Your task to perform on an android device: toggle notification dots Image 0: 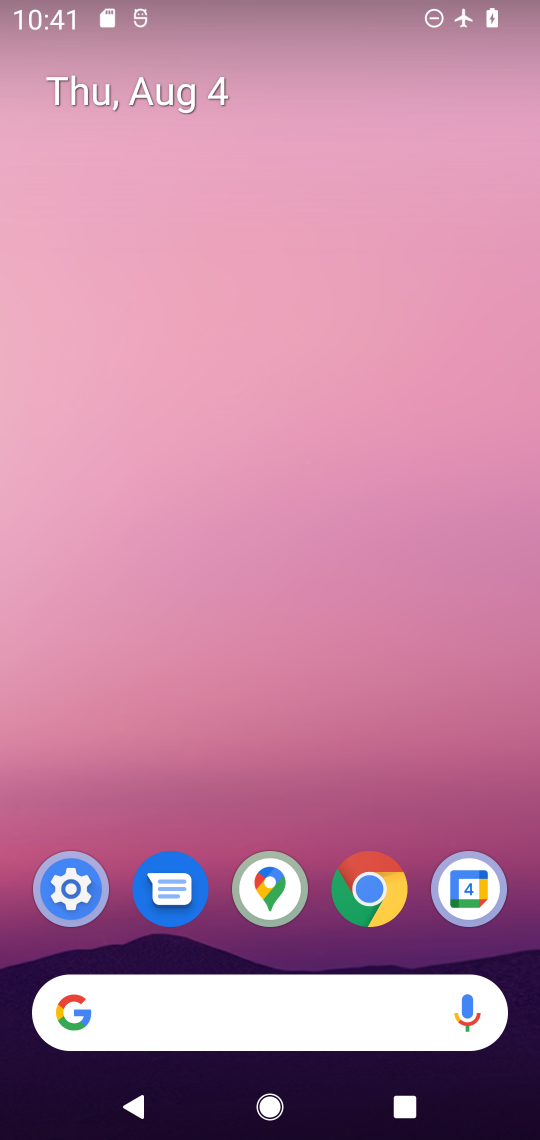
Step 0: press home button
Your task to perform on an android device: toggle notification dots Image 1: 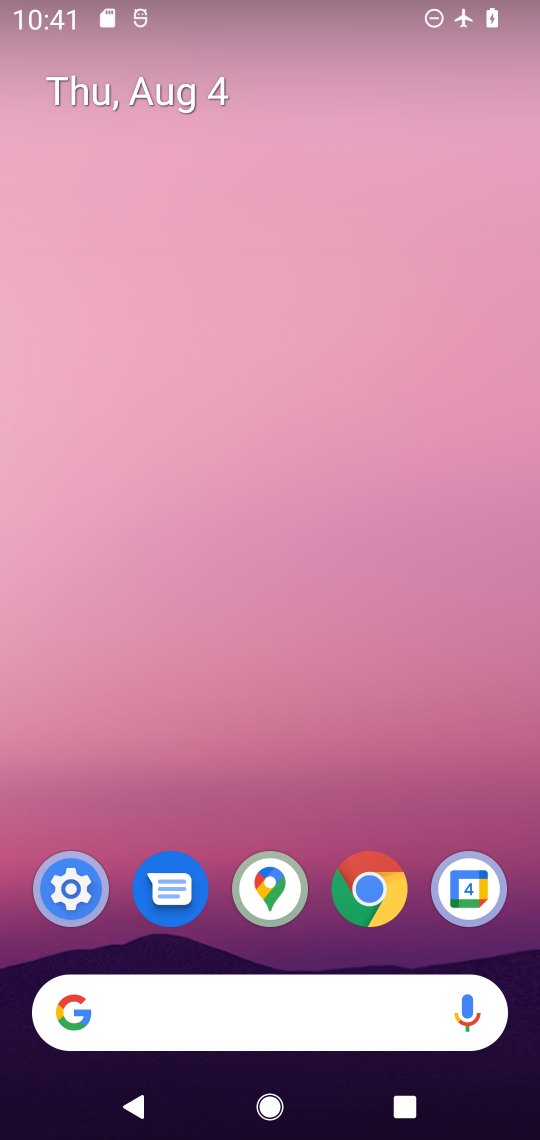
Step 1: drag from (301, 726) to (306, 205)
Your task to perform on an android device: toggle notification dots Image 2: 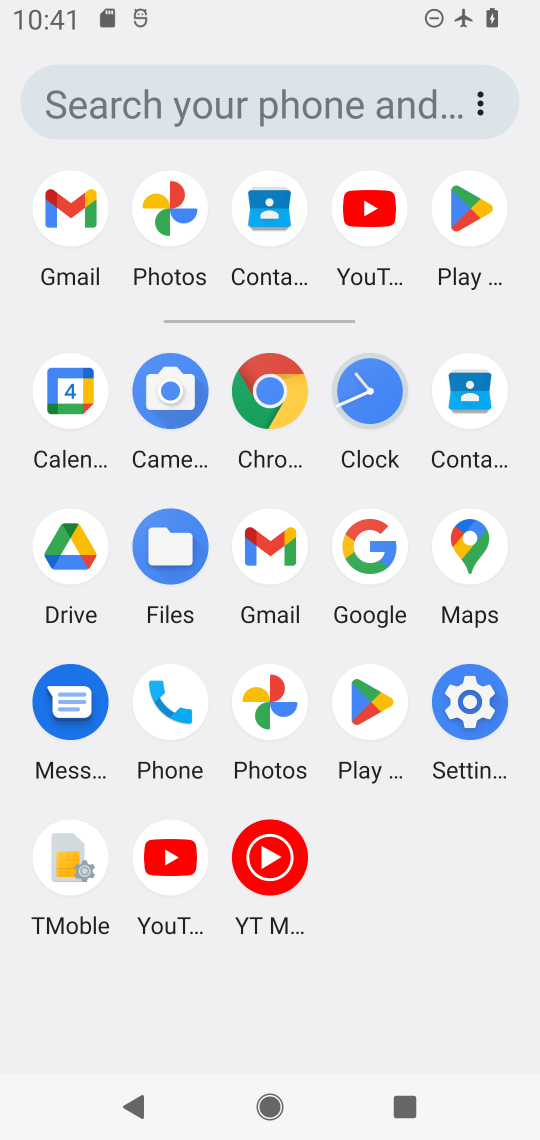
Step 2: click (461, 710)
Your task to perform on an android device: toggle notification dots Image 3: 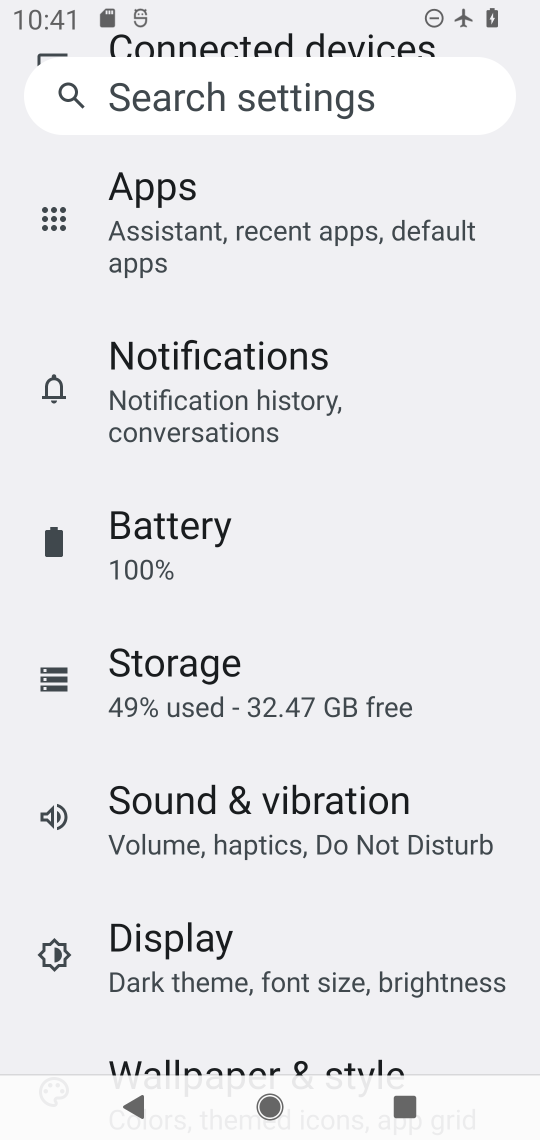
Step 3: drag from (429, 335) to (452, 563)
Your task to perform on an android device: toggle notification dots Image 4: 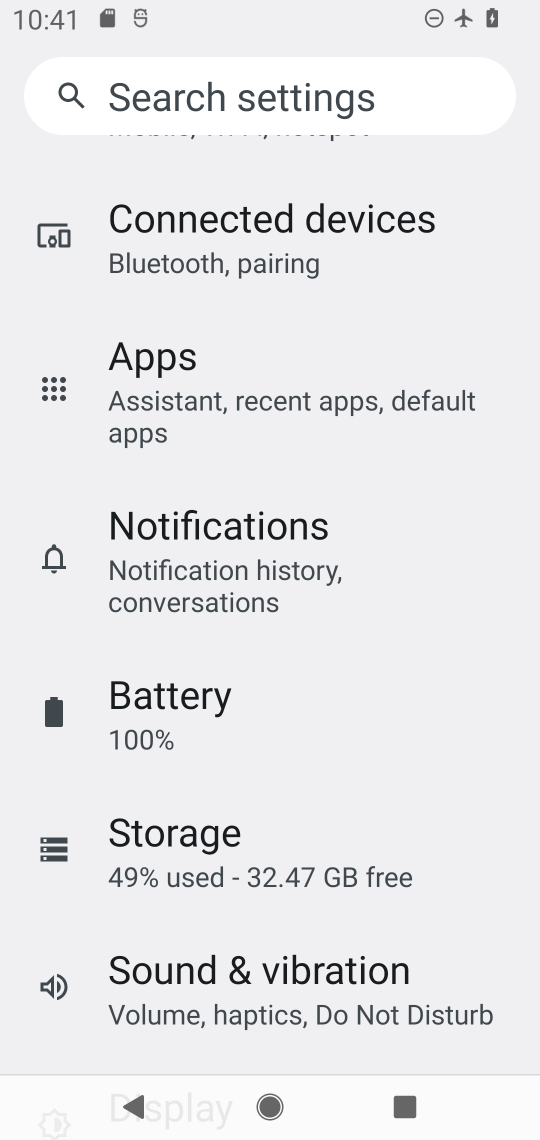
Step 4: drag from (466, 307) to (460, 549)
Your task to perform on an android device: toggle notification dots Image 5: 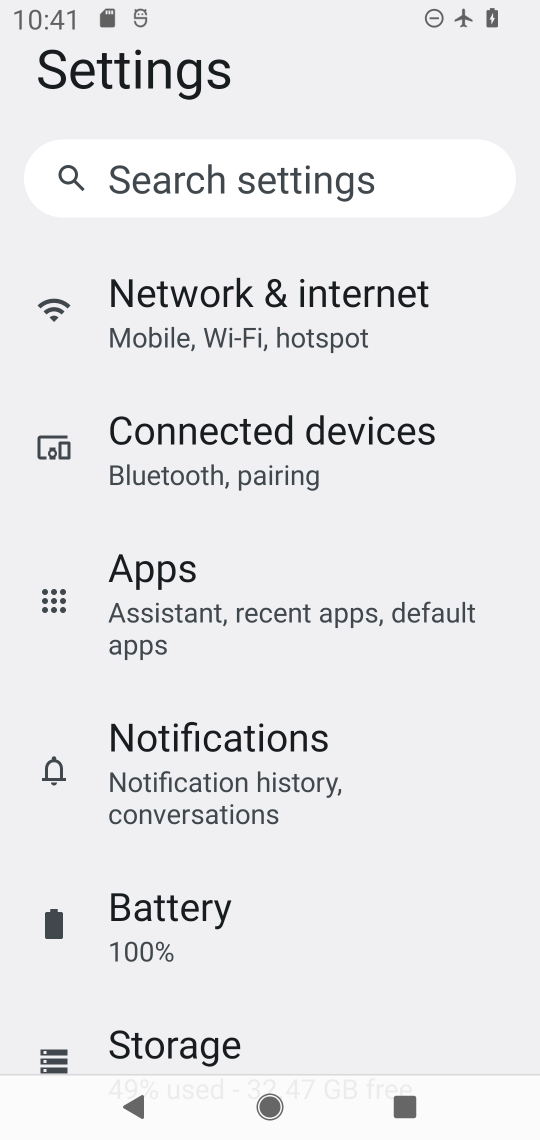
Step 5: drag from (466, 305) to (444, 679)
Your task to perform on an android device: toggle notification dots Image 6: 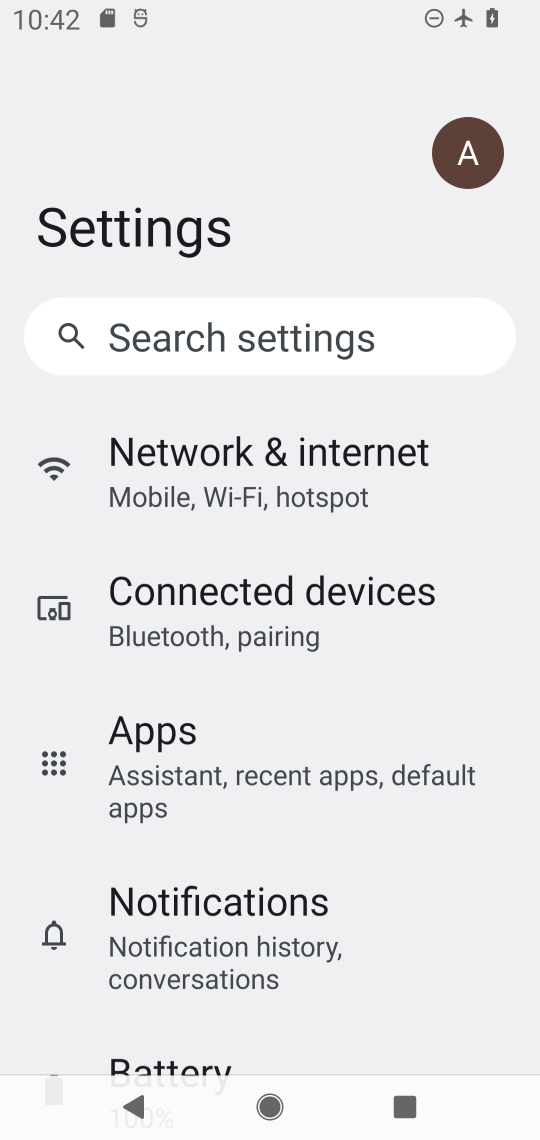
Step 6: drag from (453, 750) to (450, 608)
Your task to perform on an android device: toggle notification dots Image 7: 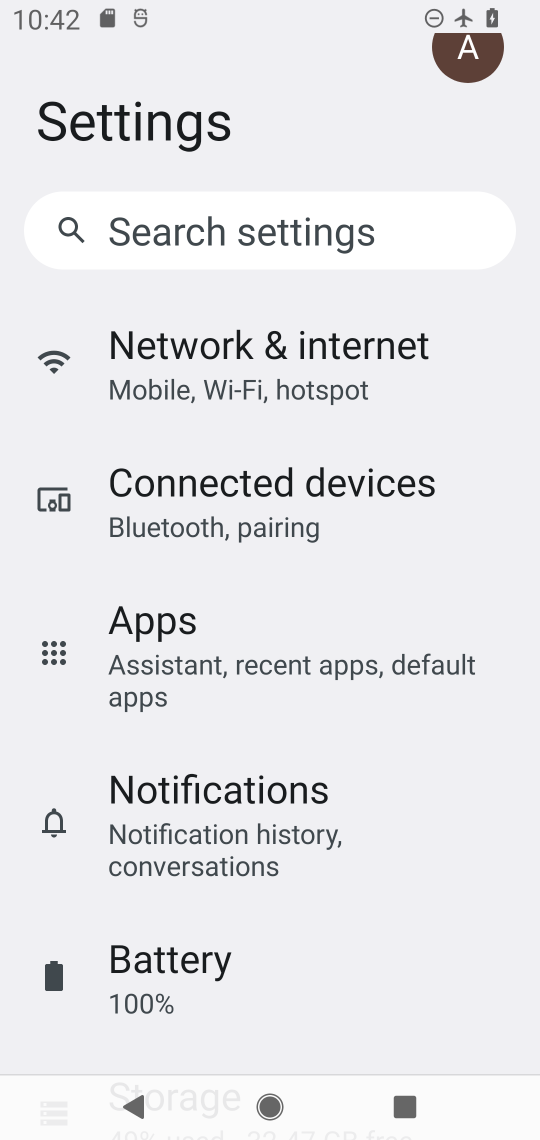
Step 7: drag from (426, 827) to (441, 638)
Your task to perform on an android device: toggle notification dots Image 8: 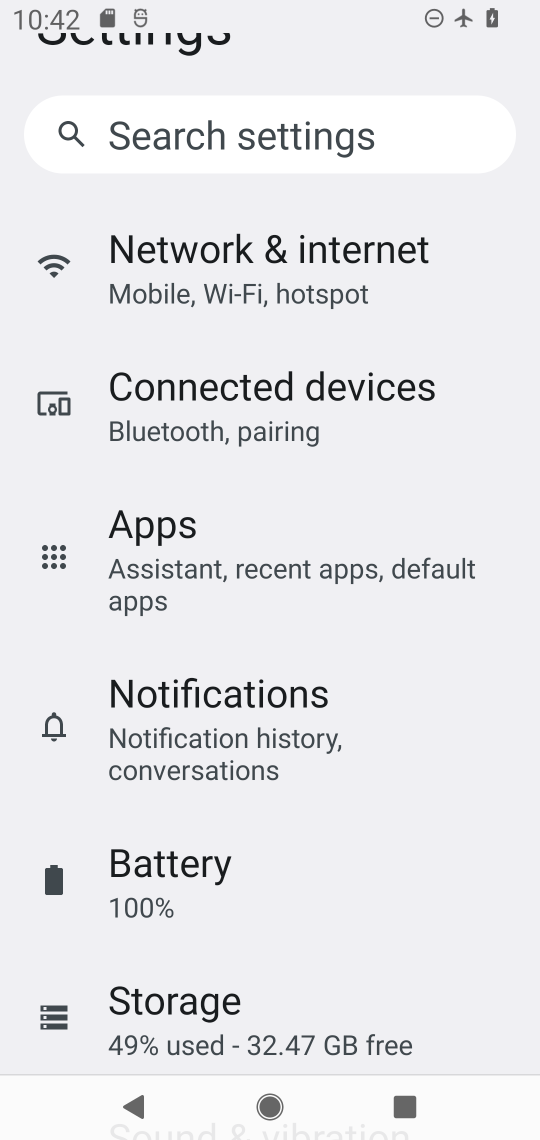
Step 8: drag from (435, 881) to (432, 643)
Your task to perform on an android device: toggle notification dots Image 9: 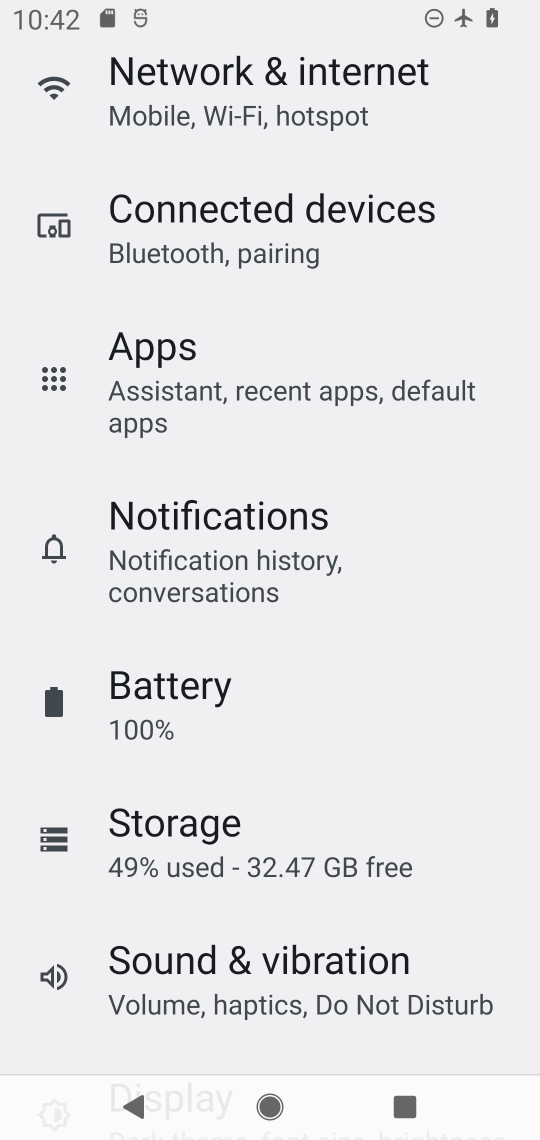
Step 9: drag from (433, 900) to (439, 695)
Your task to perform on an android device: toggle notification dots Image 10: 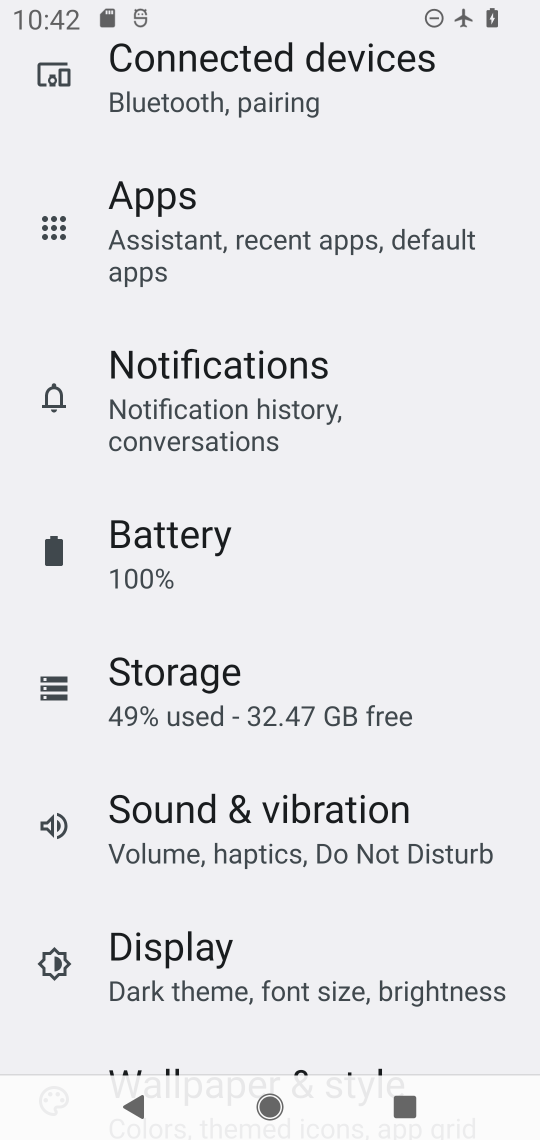
Step 10: drag from (439, 925) to (444, 636)
Your task to perform on an android device: toggle notification dots Image 11: 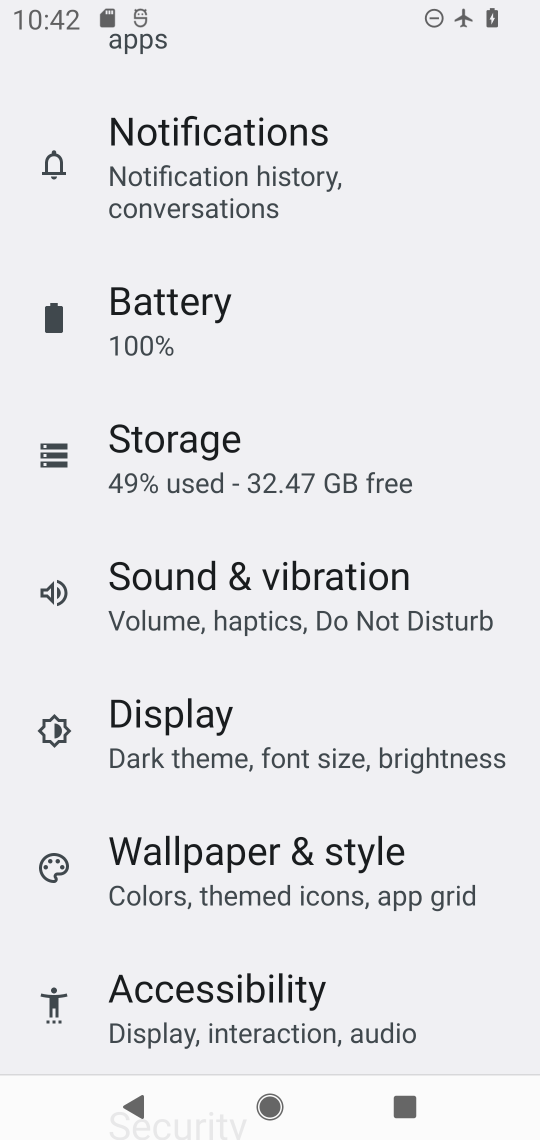
Step 11: drag from (424, 925) to (424, 674)
Your task to perform on an android device: toggle notification dots Image 12: 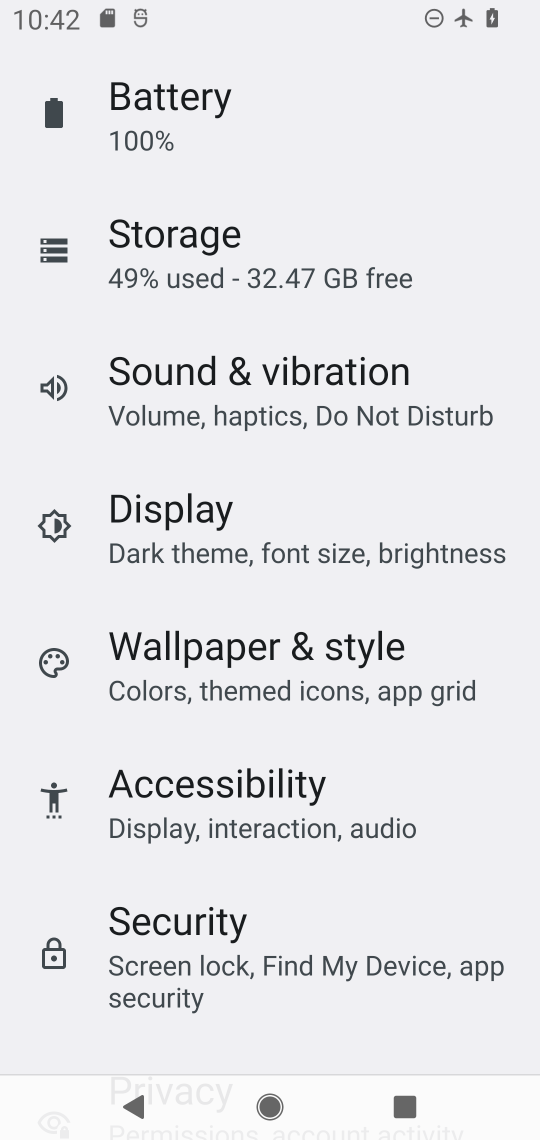
Step 12: drag from (412, 929) to (412, 718)
Your task to perform on an android device: toggle notification dots Image 13: 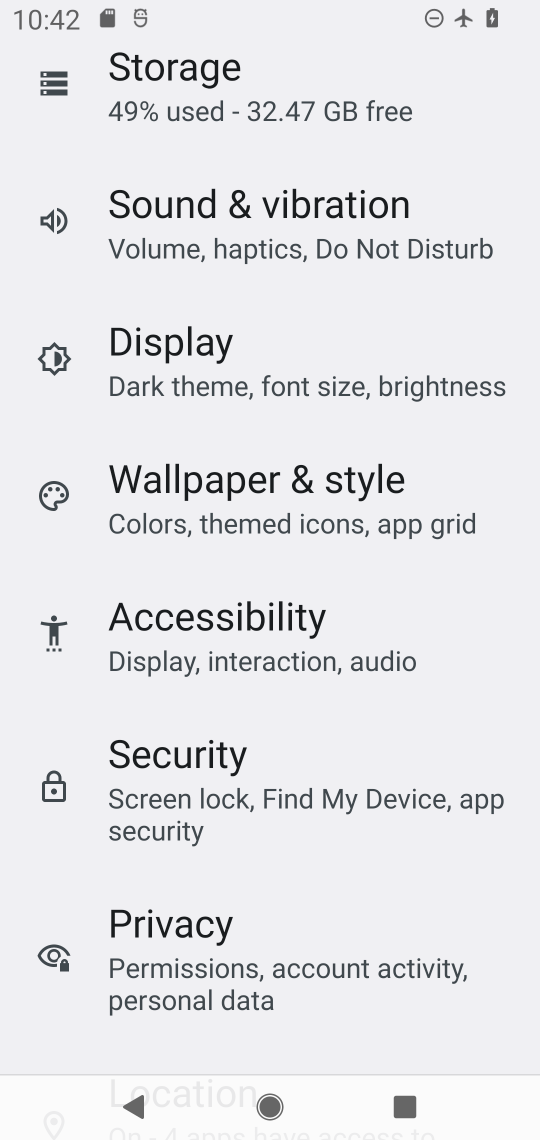
Step 13: drag from (445, 542) to (453, 734)
Your task to perform on an android device: toggle notification dots Image 14: 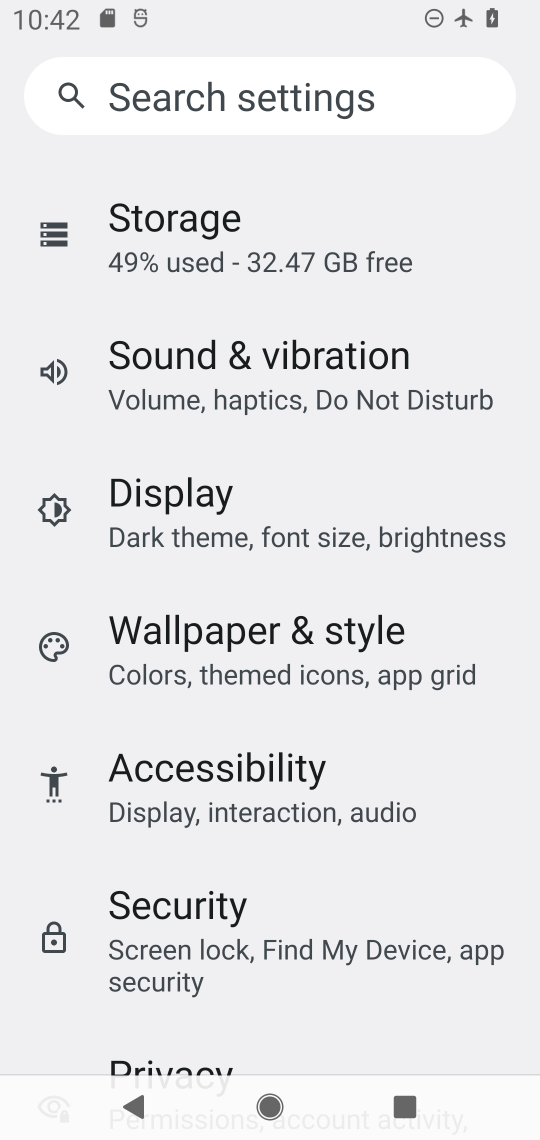
Step 14: drag from (472, 442) to (476, 691)
Your task to perform on an android device: toggle notification dots Image 15: 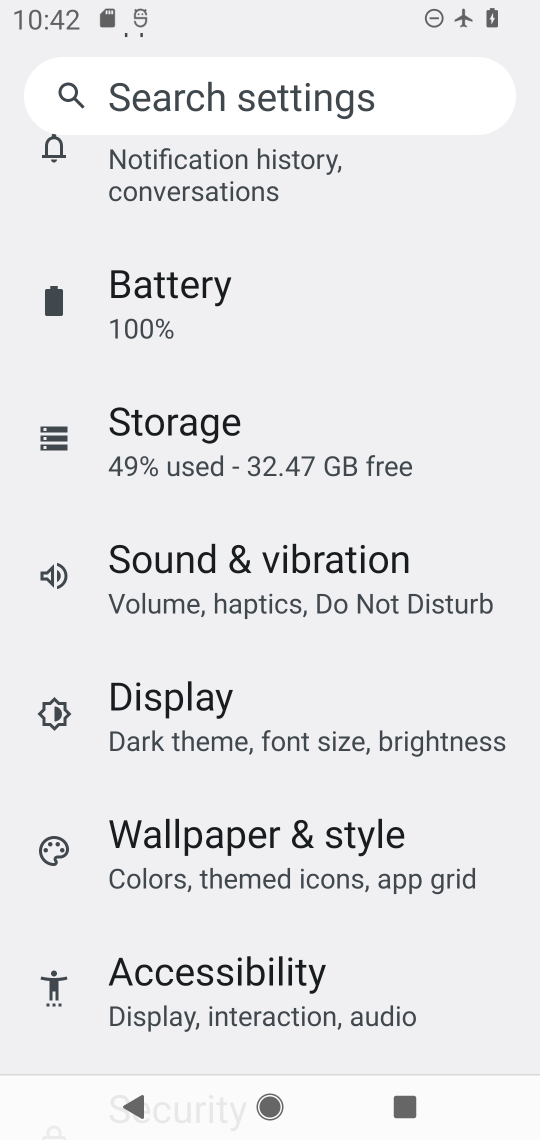
Step 15: drag from (476, 311) to (472, 516)
Your task to perform on an android device: toggle notification dots Image 16: 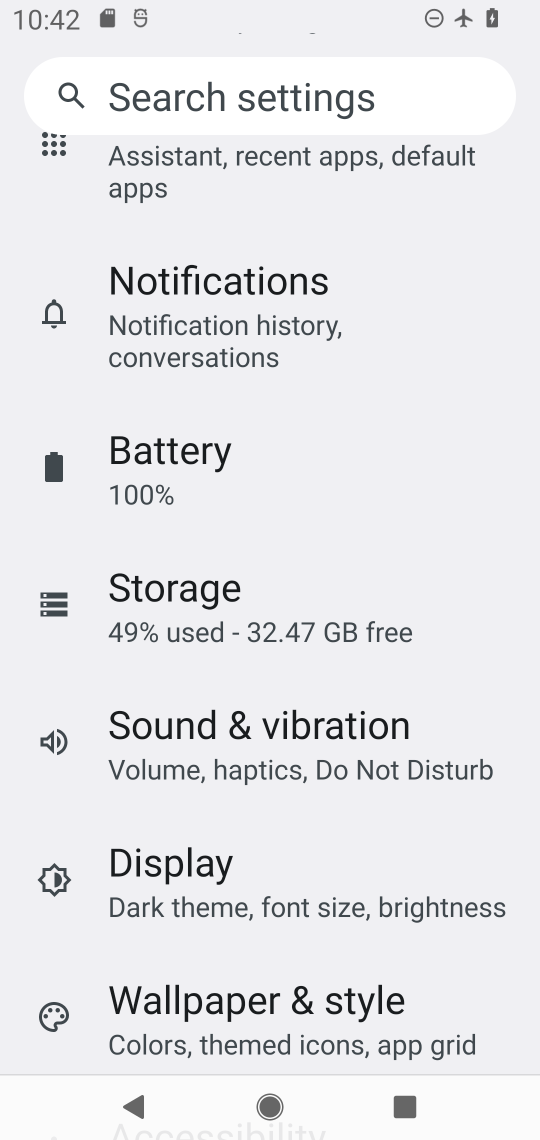
Step 16: drag from (449, 236) to (455, 421)
Your task to perform on an android device: toggle notification dots Image 17: 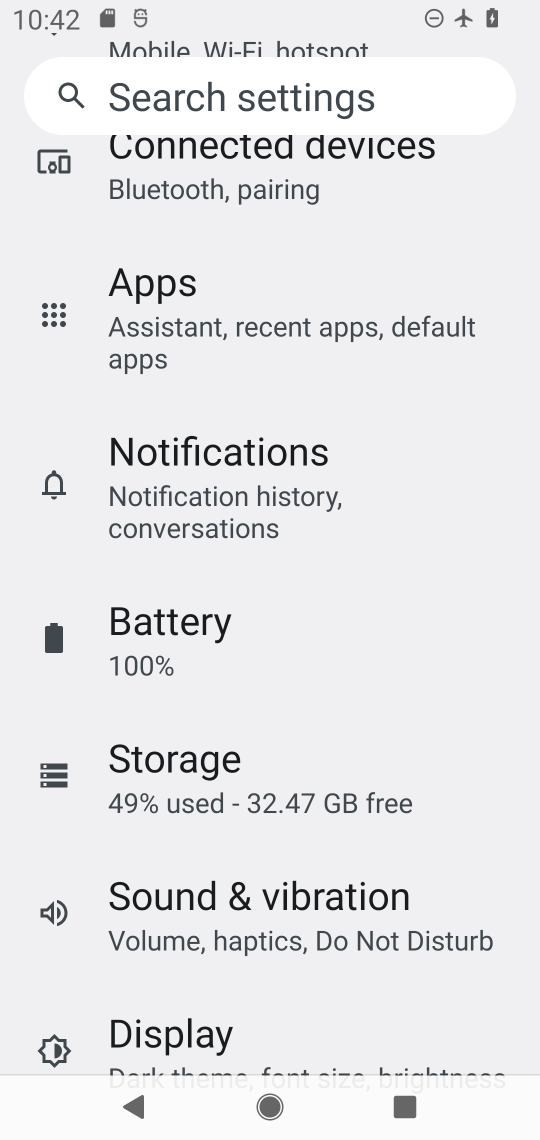
Step 17: click (370, 465)
Your task to perform on an android device: toggle notification dots Image 18: 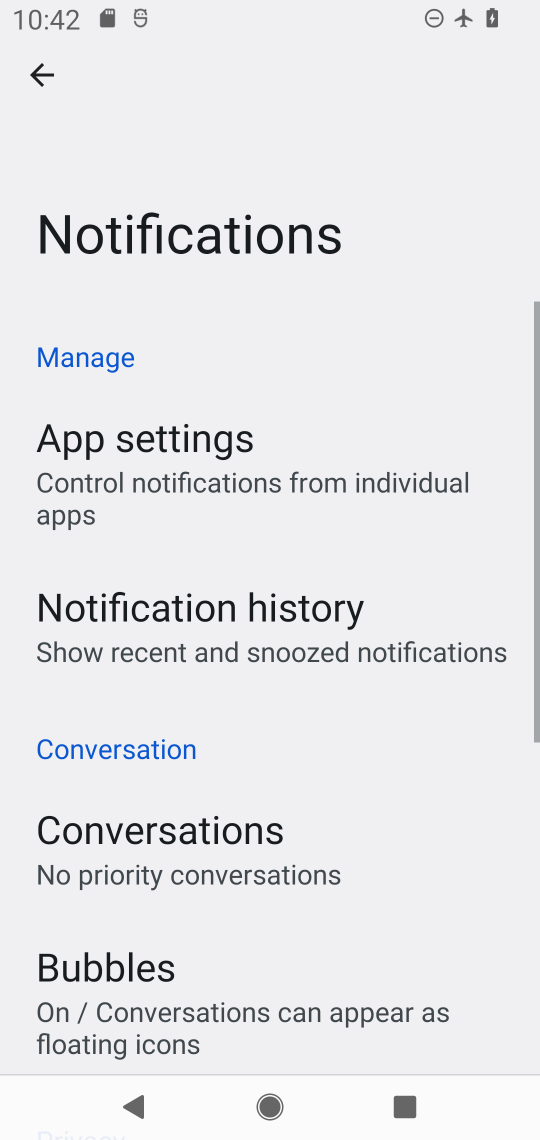
Step 18: drag from (382, 776) to (399, 553)
Your task to perform on an android device: toggle notification dots Image 19: 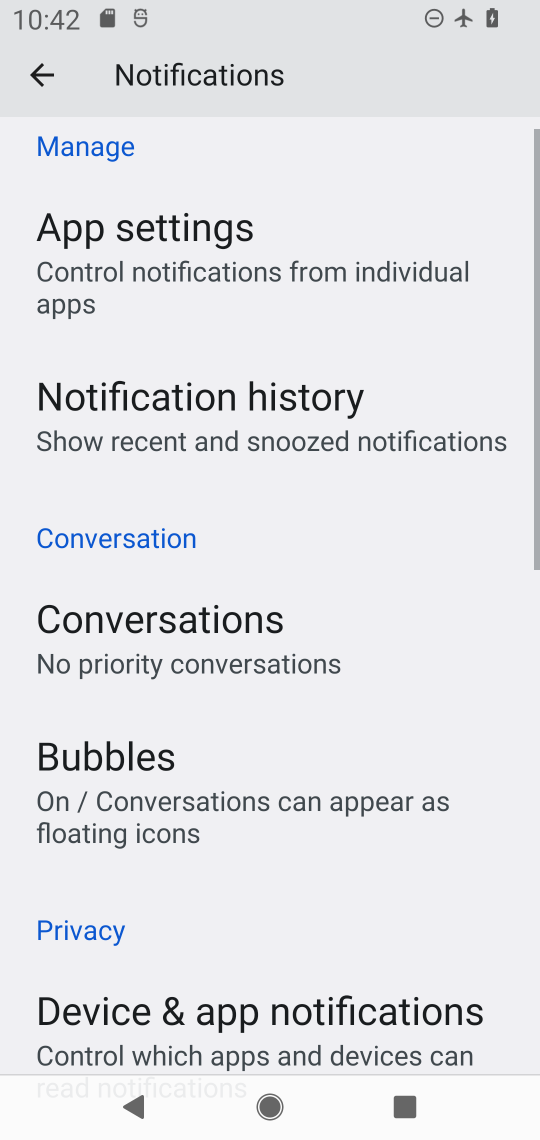
Step 19: drag from (383, 875) to (421, 661)
Your task to perform on an android device: toggle notification dots Image 20: 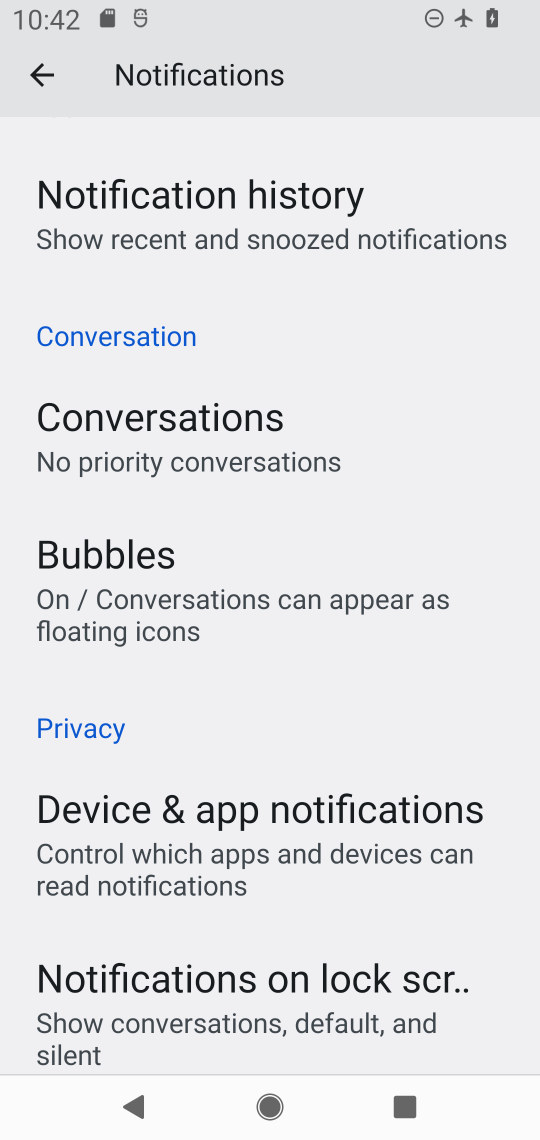
Step 20: drag from (386, 888) to (384, 672)
Your task to perform on an android device: toggle notification dots Image 21: 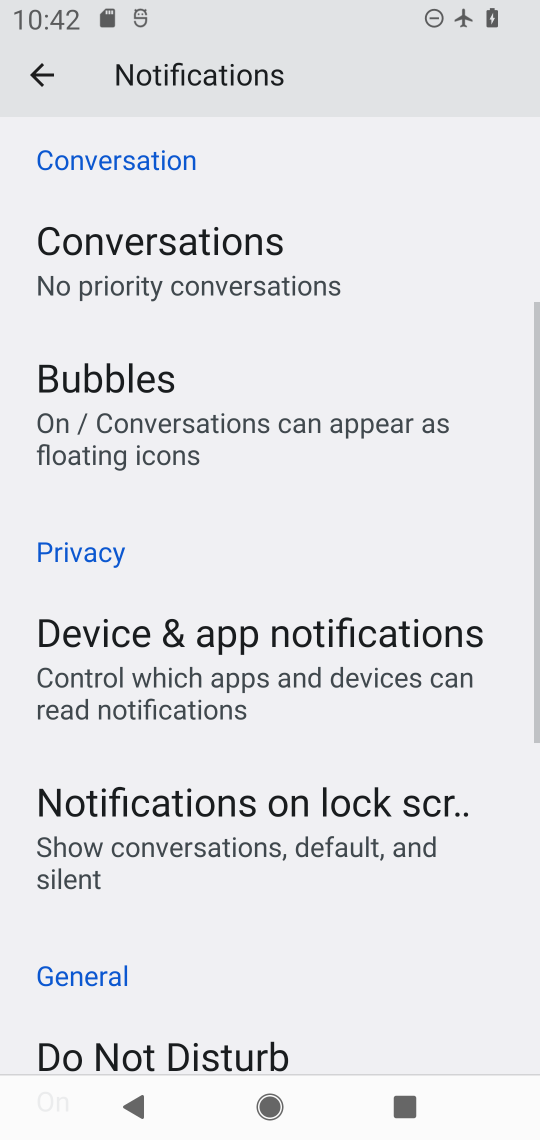
Step 21: drag from (341, 949) to (351, 723)
Your task to perform on an android device: toggle notification dots Image 22: 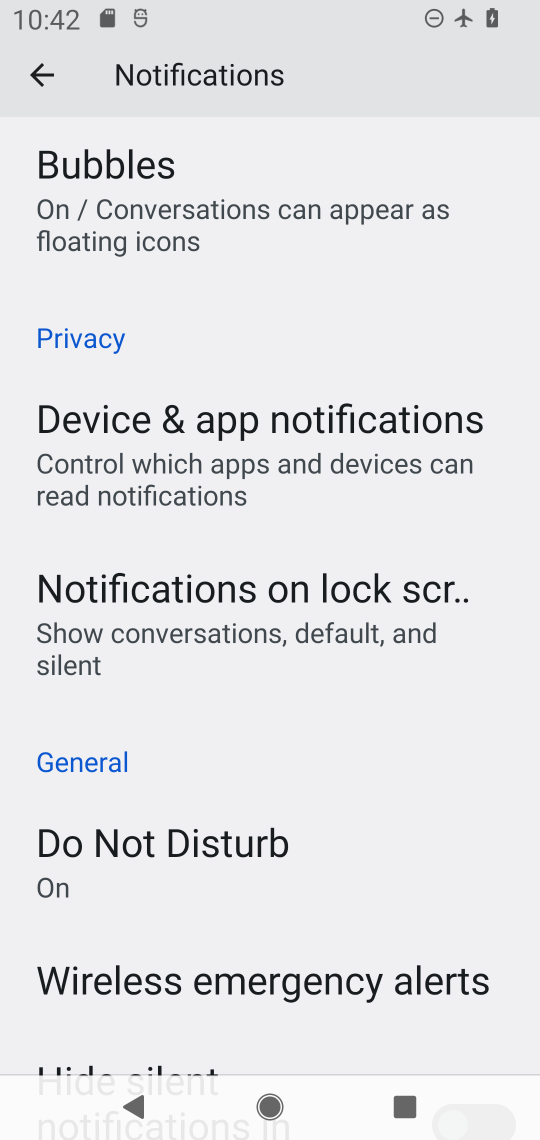
Step 22: drag from (345, 927) to (352, 691)
Your task to perform on an android device: toggle notification dots Image 23: 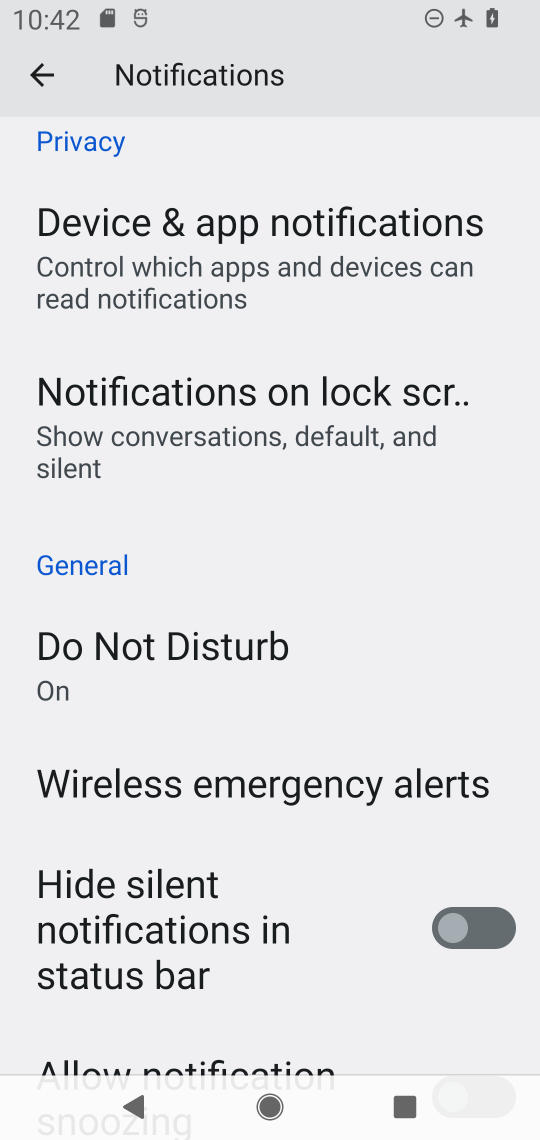
Step 23: drag from (341, 984) to (348, 749)
Your task to perform on an android device: toggle notification dots Image 24: 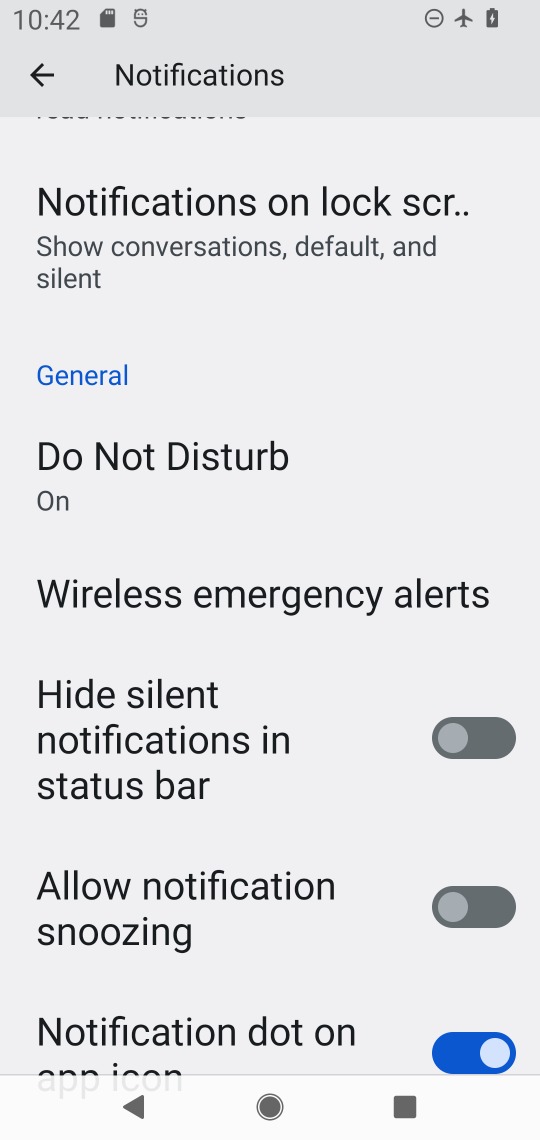
Step 24: drag from (370, 1035) to (373, 853)
Your task to perform on an android device: toggle notification dots Image 25: 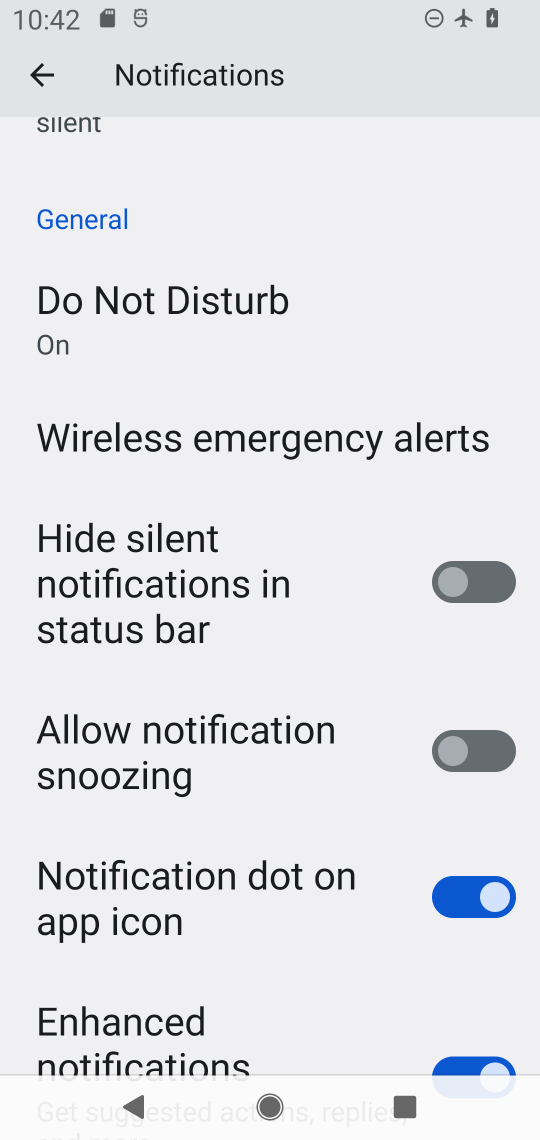
Step 25: click (487, 898)
Your task to perform on an android device: toggle notification dots Image 26: 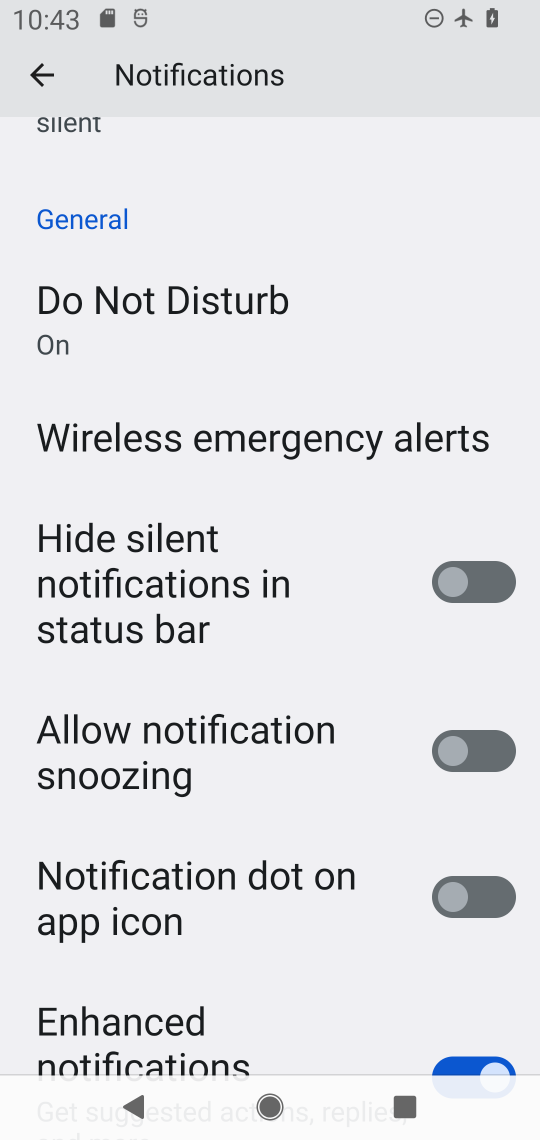
Step 26: task complete